Your task to perform on an android device: Go to location settings Image 0: 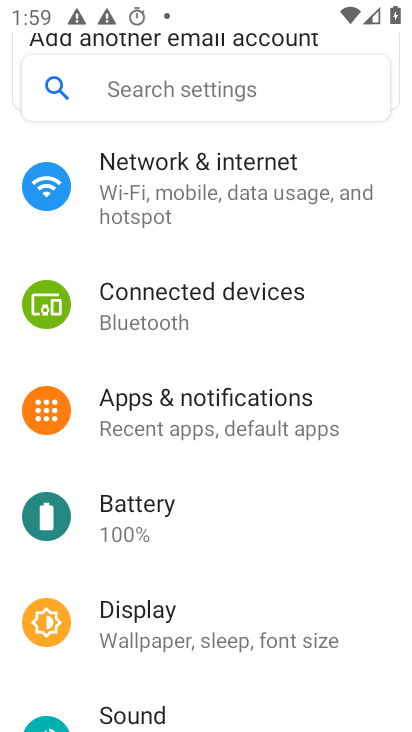
Step 0: press home button
Your task to perform on an android device: Go to location settings Image 1: 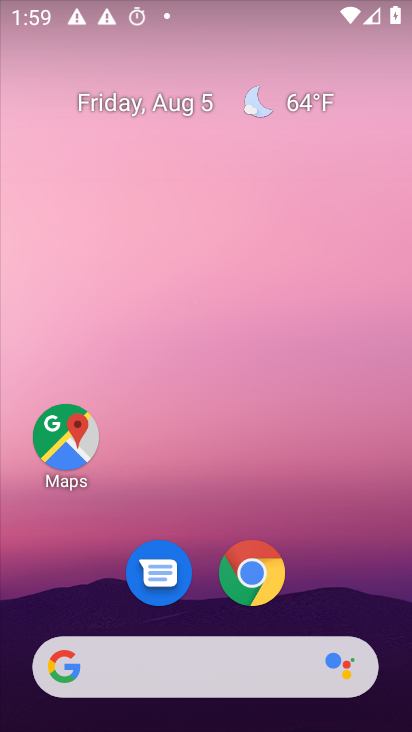
Step 1: drag from (336, 608) to (338, 174)
Your task to perform on an android device: Go to location settings Image 2: 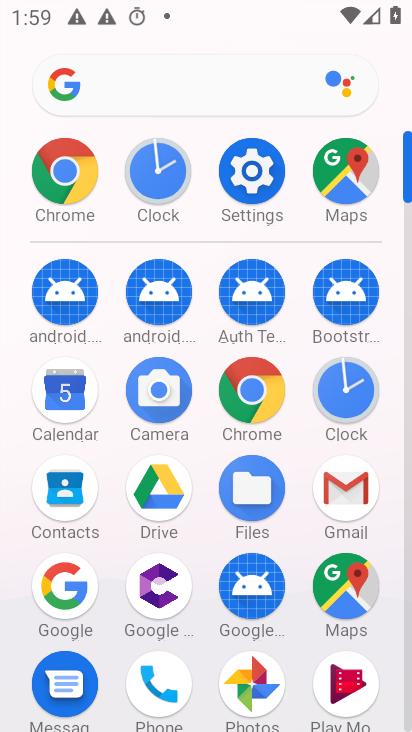
Step 2: click (267, 171)
Your task to perform on an android device: Go to location settings Image 3: 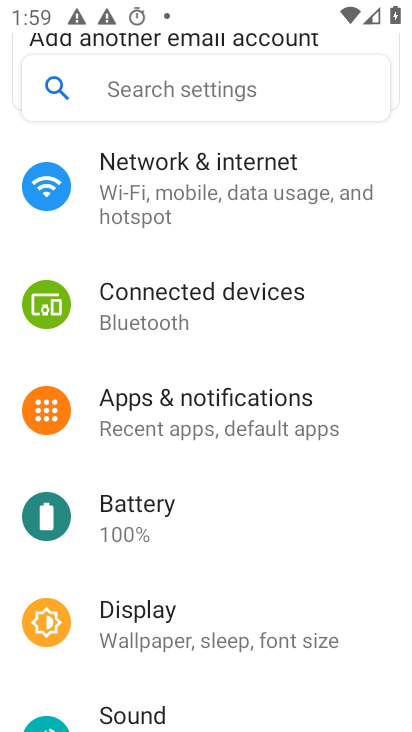
Step 3: drag from (367, 547) to (372, 441)
Your task to perform on an android device: Go to location settings Image 4: 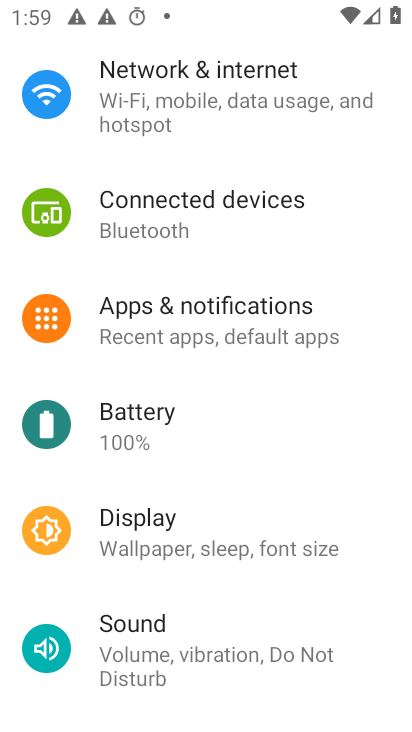
Step 4: drag from (374, 603) to (380, 487)
Your task to perform on an android device: Go to location settings Image 5: 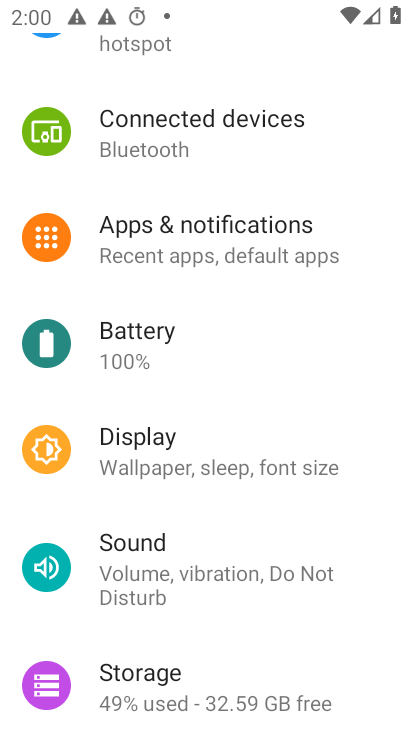
Step 5: drag from (383, 622) to (379, 498)
Your task to perform on an android device: Go to location settings Image 6: 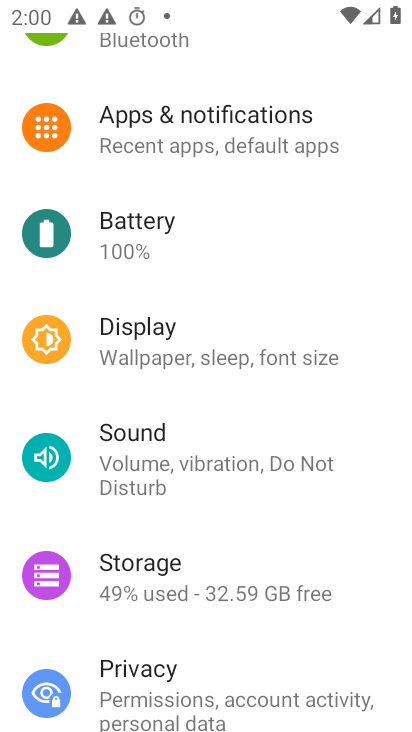
Step 6: drag from (367, 666) to (369, 492)
Your task to perform on an android device: Go to location settings Image 7: 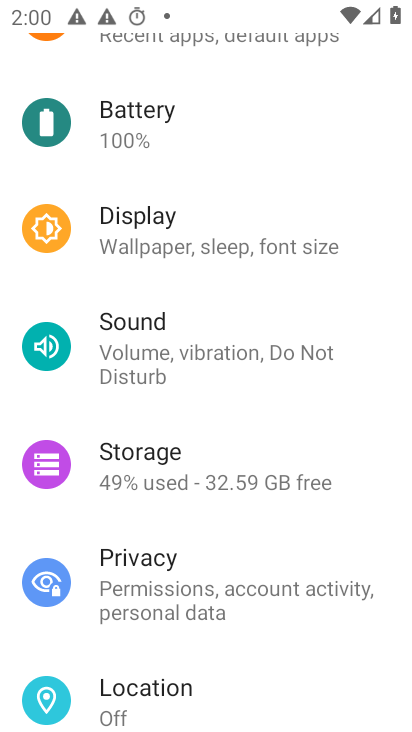
Step 7: drag from (347, 672) to (359, 521)
Your task to perform on an android device: Go to location settings Image 8: 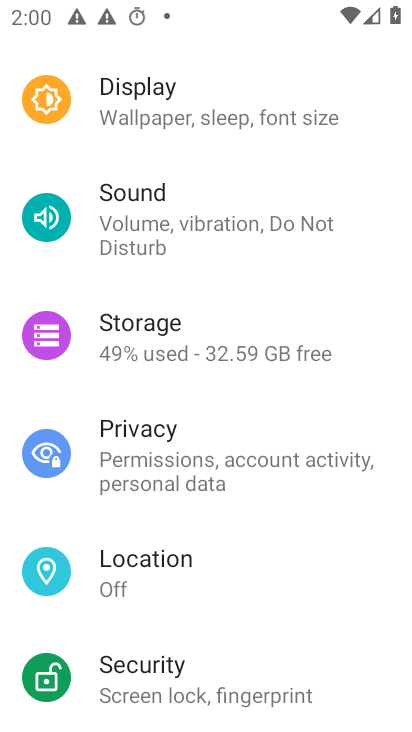
Step 8: drag from (334, 595) to (355, 481)
Your task to perform on an android device: Go to location settings Image 9: 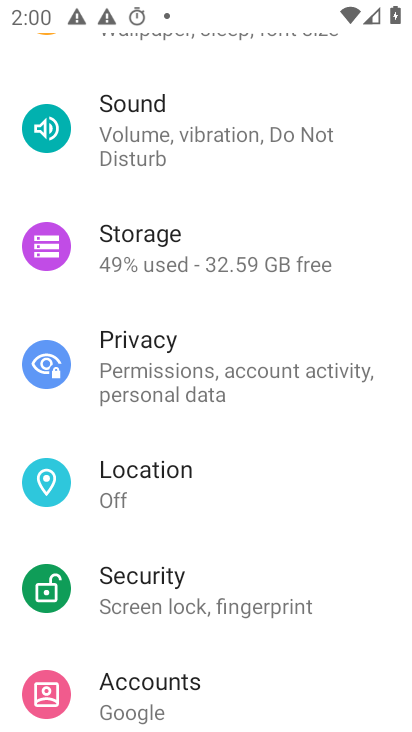
Step 9: drag from (362, 621) to (361, 476)
Your task to perform on an android device: Go to location settings Image 10: 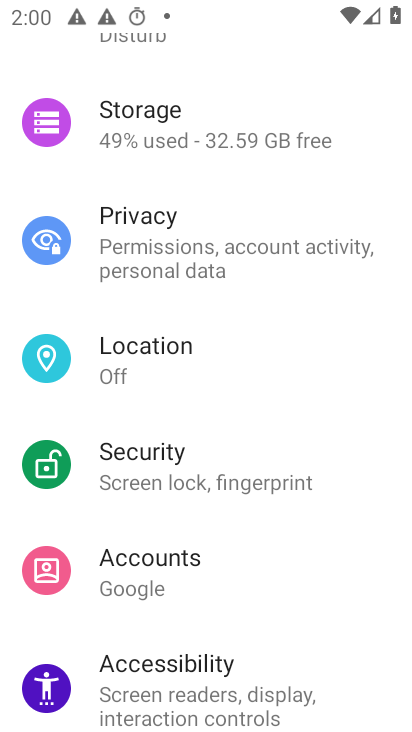
Step 10: drag from (357, 607) to (357, 483)
Your task to perform on an android device: Go to location settings Image 11: 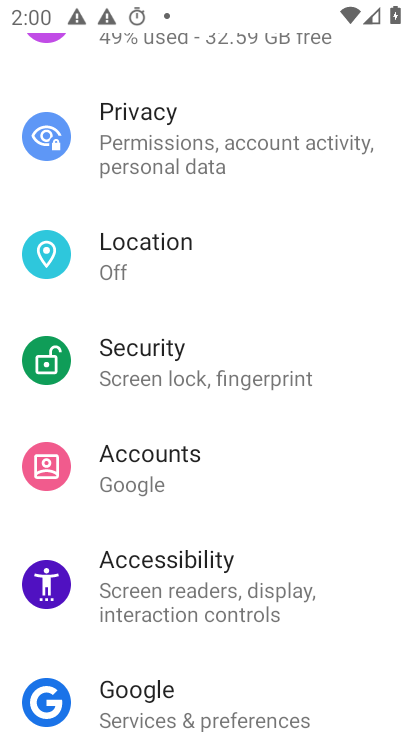
Step 11: click (209, 253)
Your task to perform on an android device: Go to location settings Image 12: 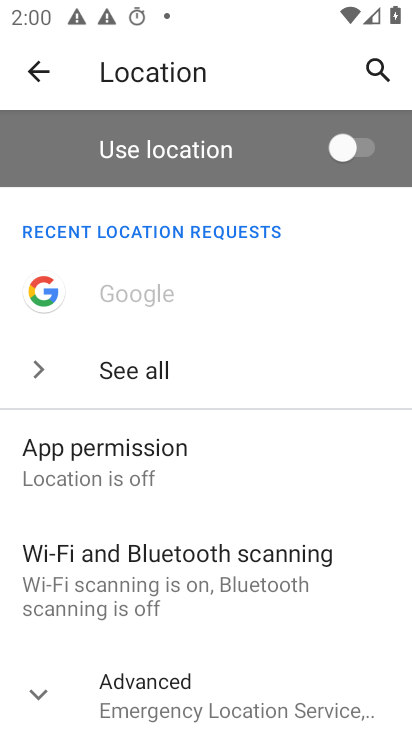
Step 12: task complete